Your task to perform on an android device: Go to Maps Image 0: 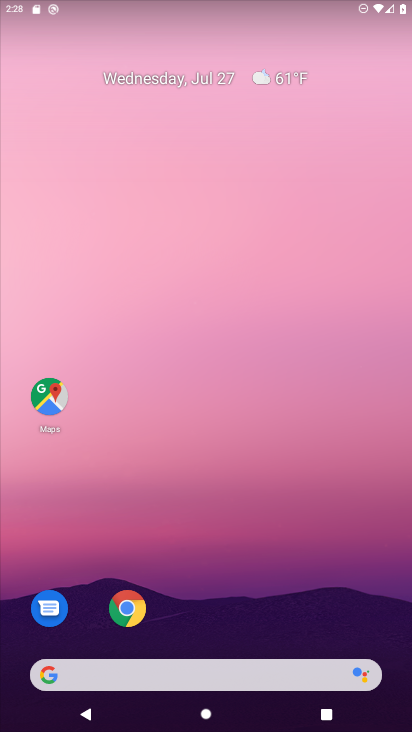
Step 0: click (48, 393)
Your task to perform on an android device: Go to Maps Image 1: 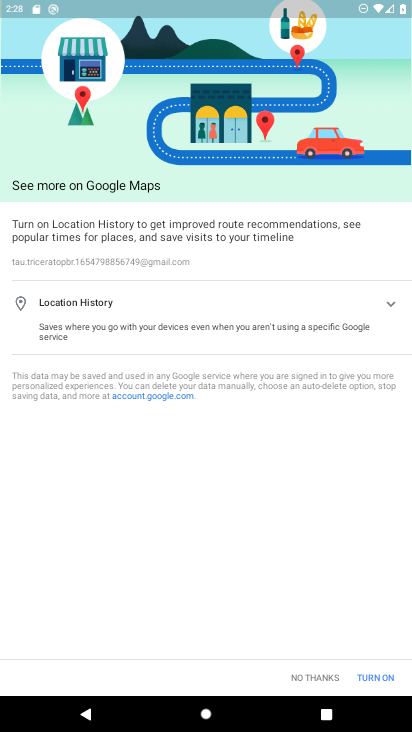
Step 1: click (319, 679)
Your task to perform on an android device: Go to Maps Image 2: 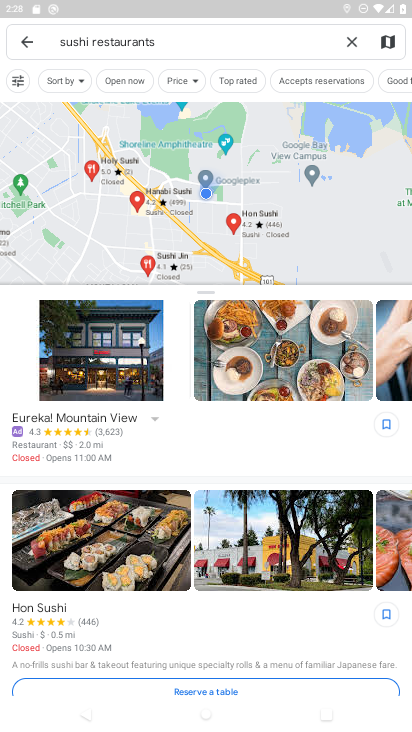
Step 2: task complete